Your task to perform on an android device: Open Google Chrome and open the bookmarks view Image 0: 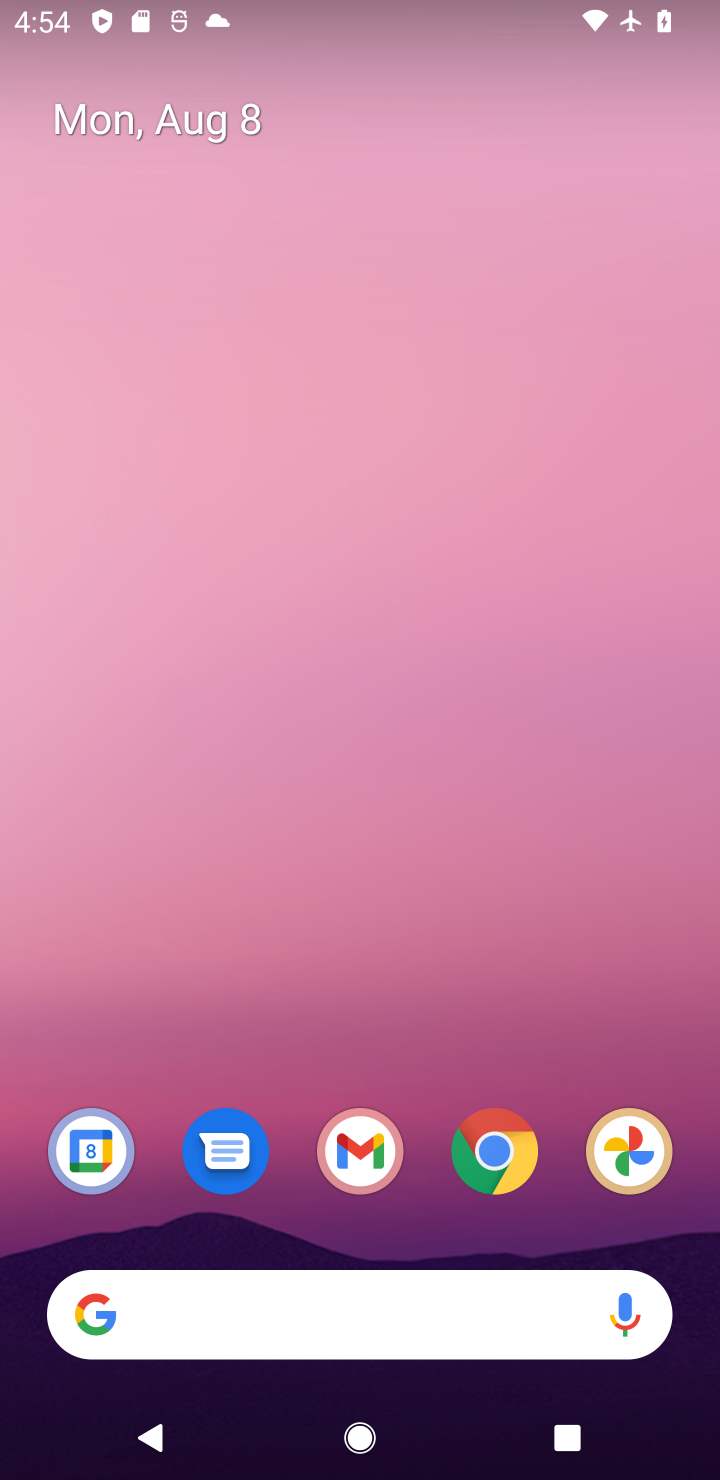
Step 0: click (491, 1138)
Your task to perform on an android device: Open Google Chrome and open the bookmarks view Image 1: 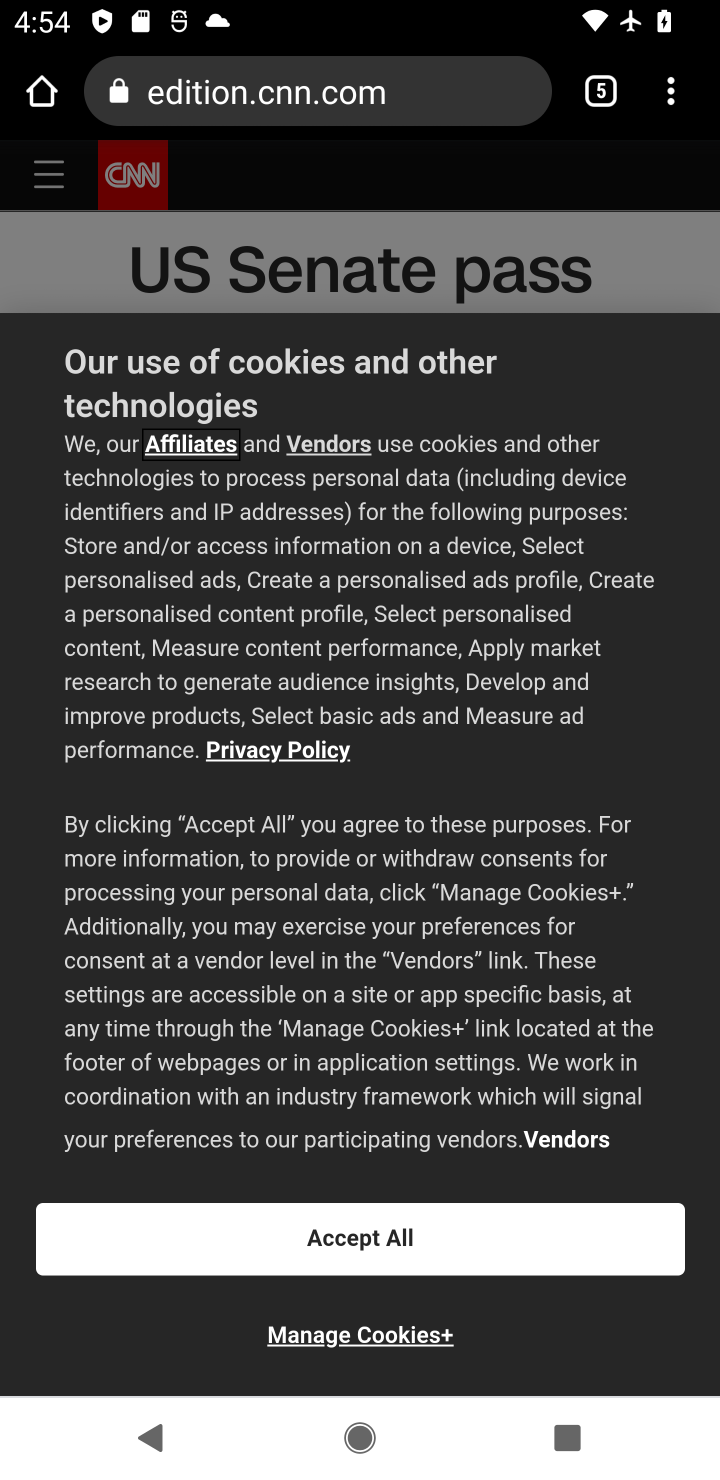
Step 1: click (667, 109)
Your task to perform on an android device: Open Google Chrome and open the bookmarks view Image 2: 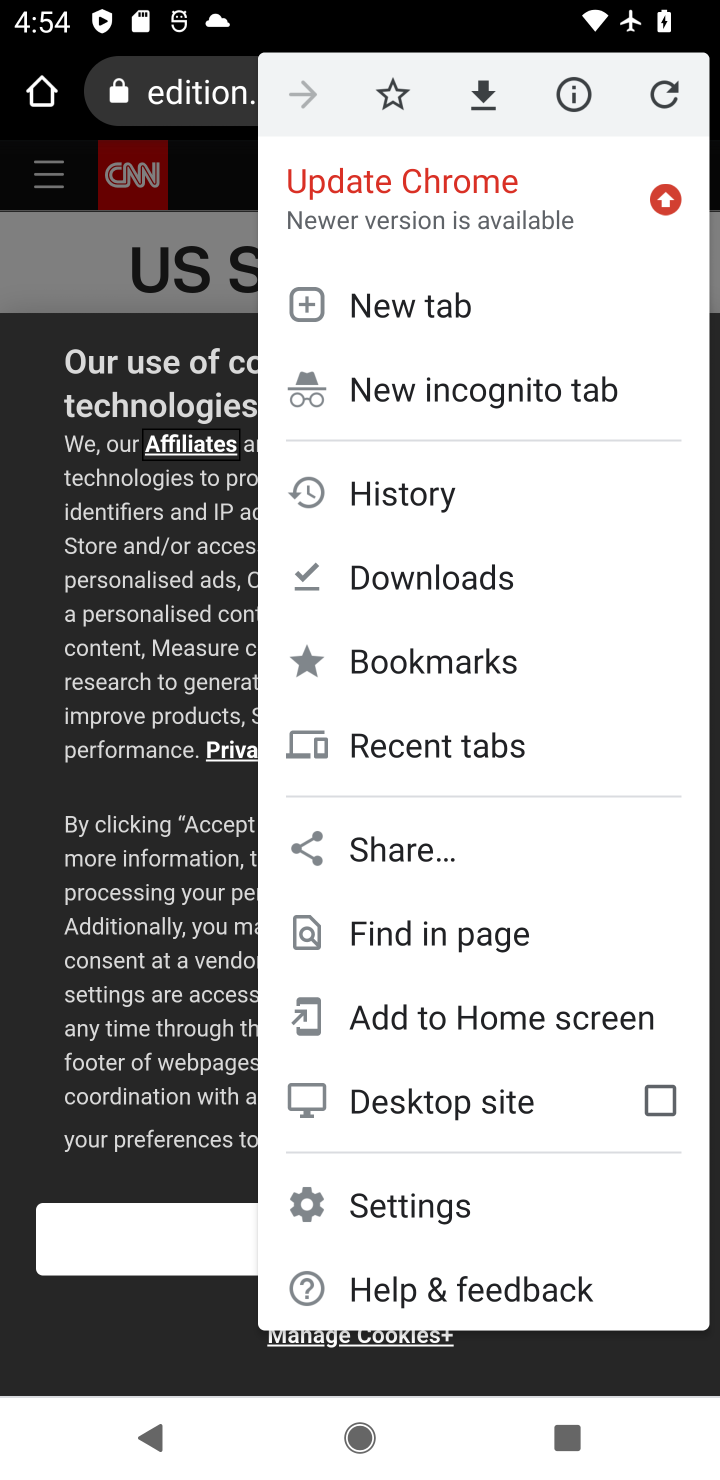
Step 2: click (472, 673)
Your task to perform on an android device: Open Google Chrome and open the bookmarks view Image 3: 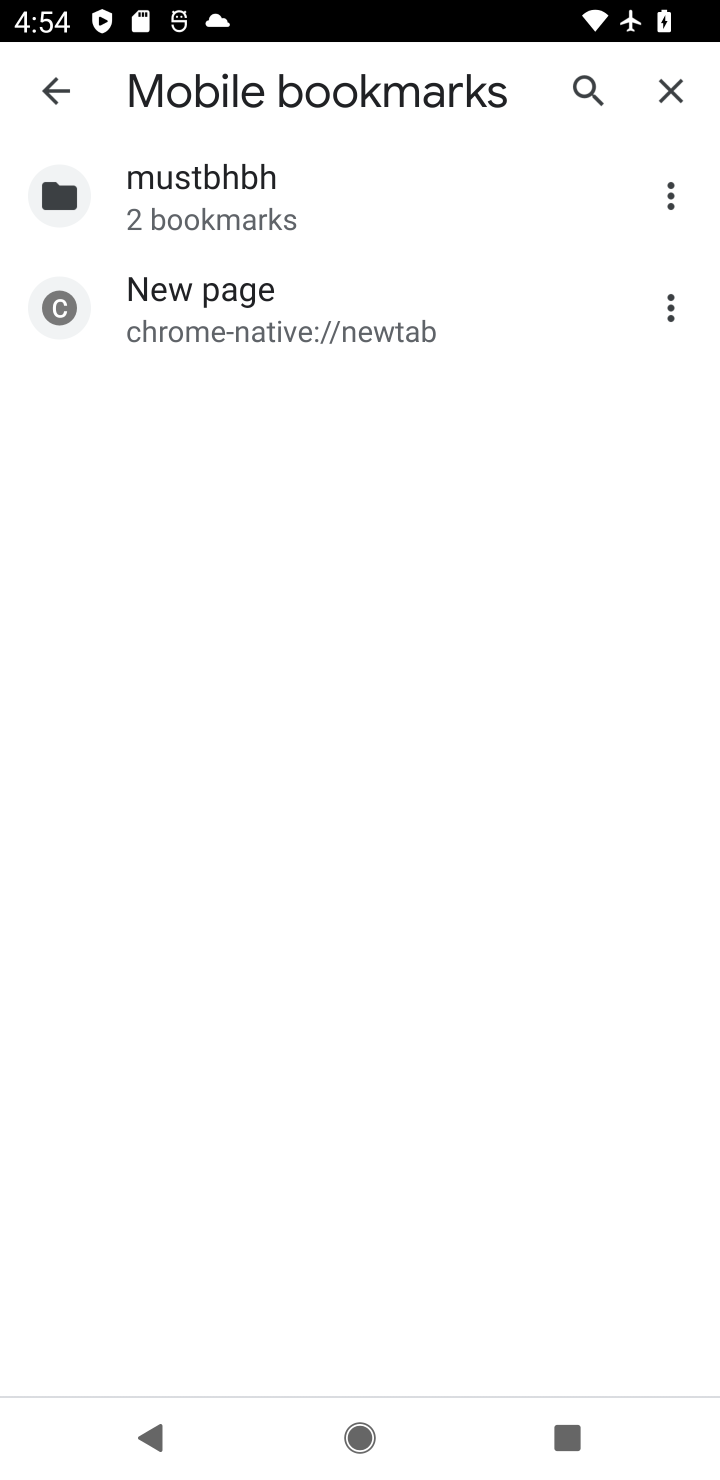
Step 3: task complete